Your task to perform on an android device: change the clock display to digital Image 0: 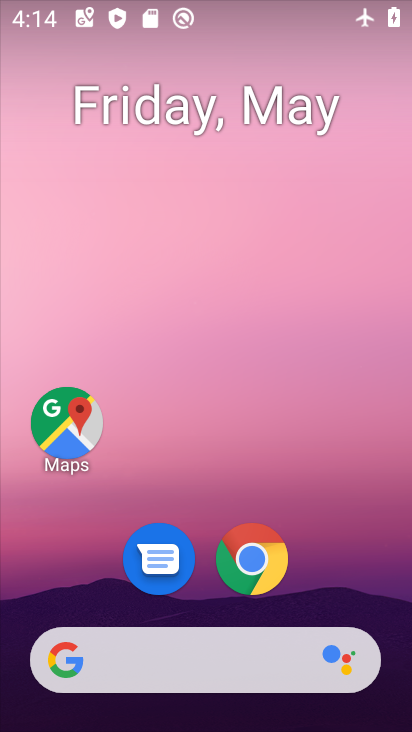
Step 0: drag from (333, 600) to (318, 199)
Your task to perform on an android device: change the clock display to digital Image 1: 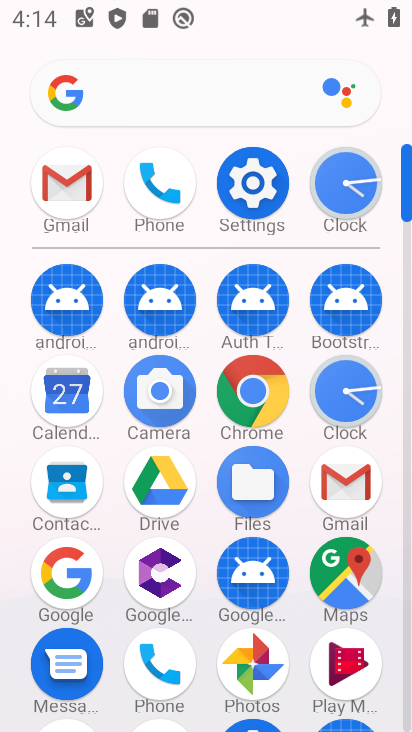
Step 1: click (320, 193)
Your task to perform on an android device: change the clock display to digital Image 2: 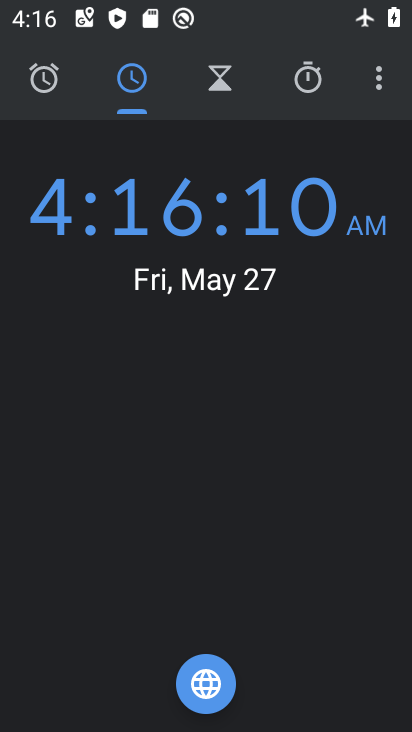
Step 2: click (372, 75)
Your task to perform on an android device: change the clock display to digital Image 3: 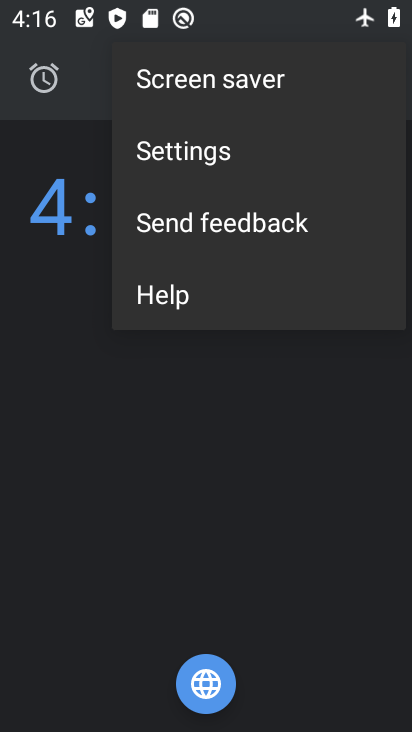
Step 3: click (247, 149)
Your task to perform on an android device: change the clock display to digital Image 4: 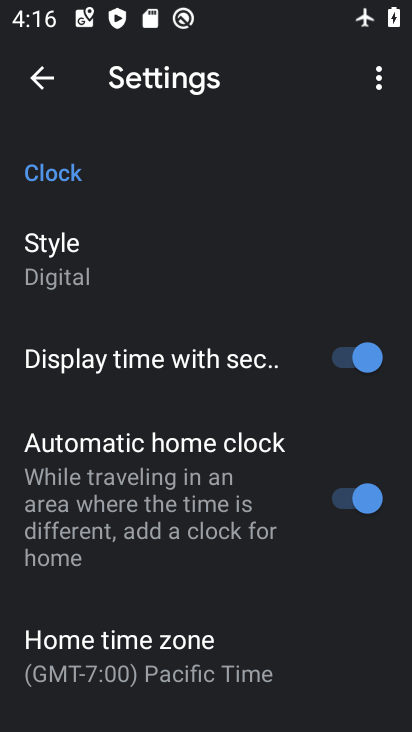
Step 4: task complete